Your task to perform on an android device: toggle notification dots Image 0: 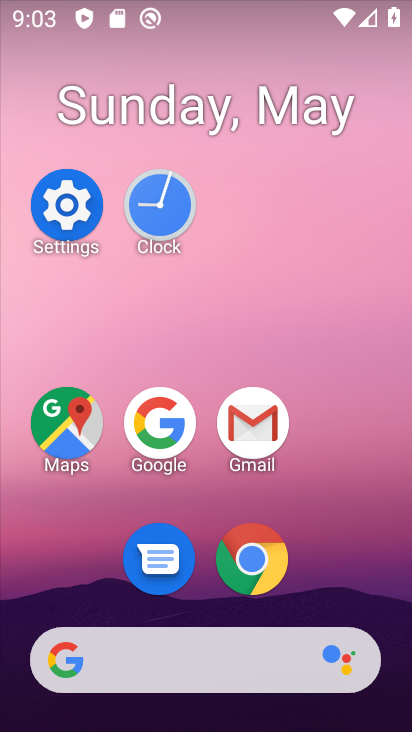
Step 0: click (67, 191)
Your task to perform on an android device: toggle notification dots Image 1: 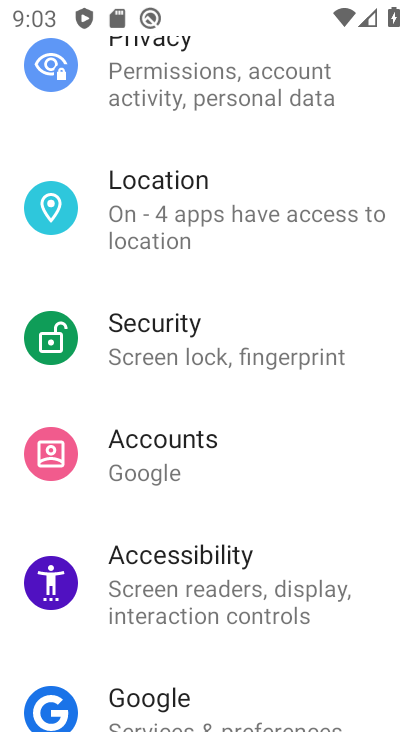
Step 1: drag from (113, 451) to (114, 731)
Your task to perform on an android device: toggle notification dots Image 2: 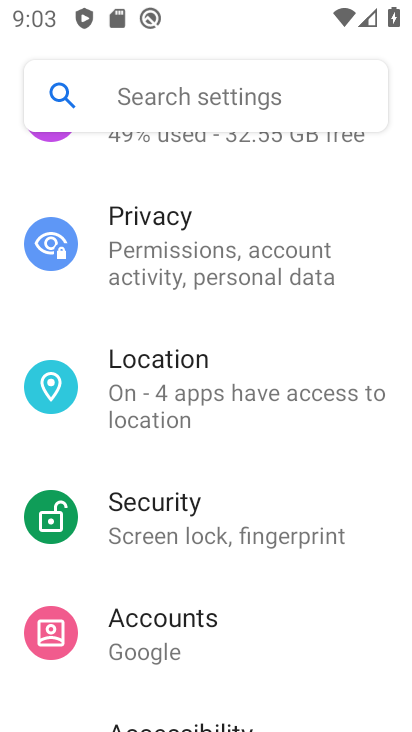
Step 2: drag from (294, 152) to (198, 649)
Your task to perform on an android device: toggle notification dots Image 3: 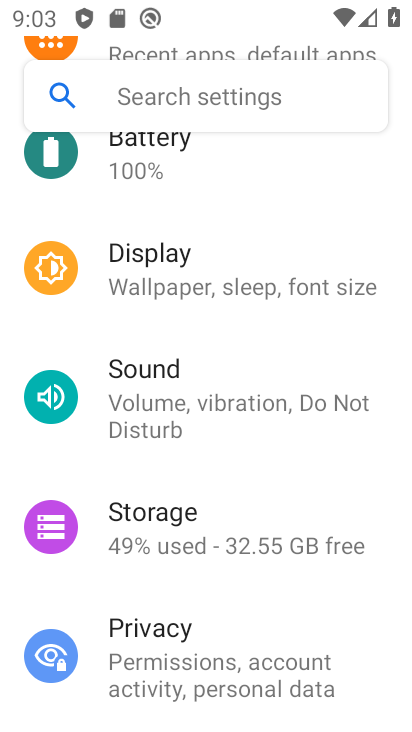
Step 3: drag from (269, 152) to (186, 730)
Your task to perform on an android device: toggle notification dots Image 4: 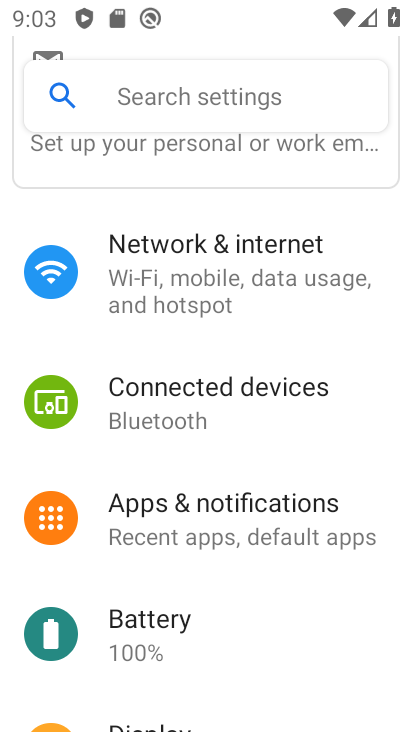
Step 4: drag from (243, 259) to (260, 624)
Your task to perform on an android device: toggle notification dots Image 5: 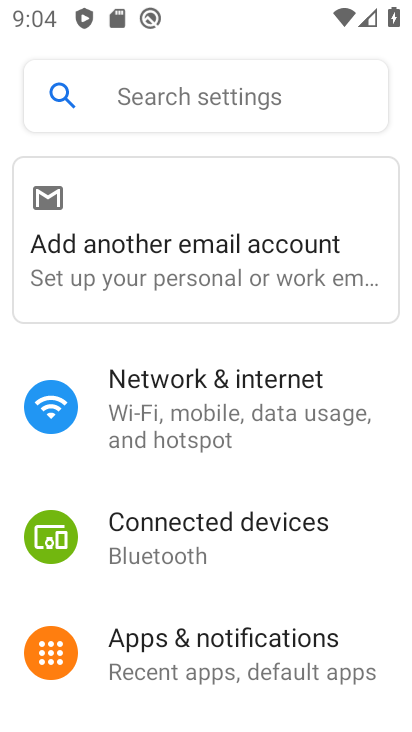
Step 5: click (217, 629)
Your task to perform on an android device: toggle notification dots Image 6: 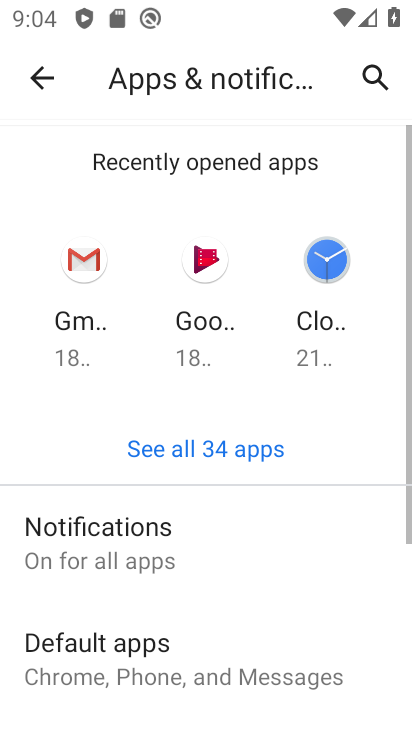
Step 6: drag from (217, 629) to (216, 284)
Your task to perform on an android device: toggle notification dots Image 7: 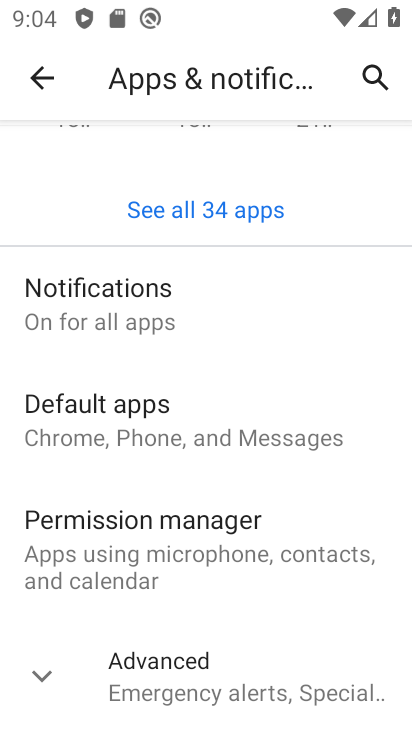
Step 7: click (205, 686)
Your task to perform on an android device: toggle notification dots Image 8: 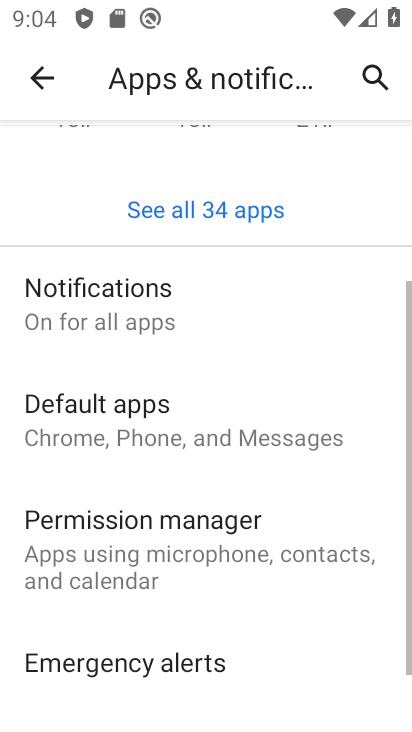
Step 8: drag from (174, 543) to (191, 279)
Your task to perform on an android device: toggle notification dots Image 9: 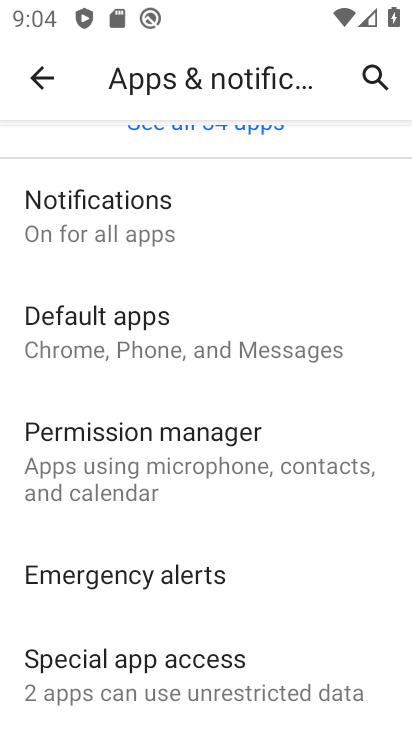
Step 9: drag from (174, 277) to (162, 698)
Your task to perform on an android device: toggle notification dots Image 10: 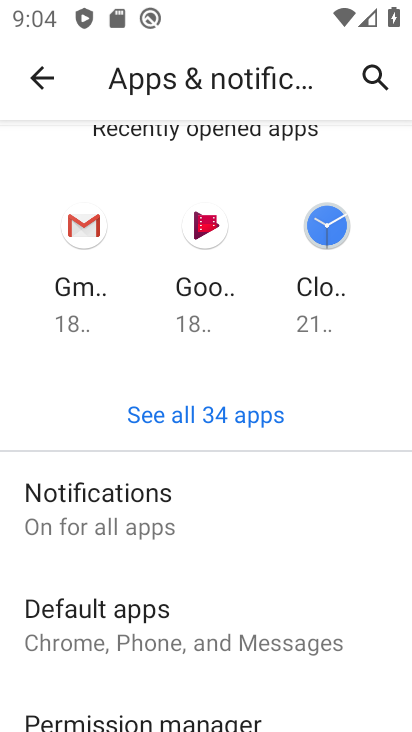
Step 10: click (80, 530)
Your task to perform on an android device: toggle notification dots Image 11: 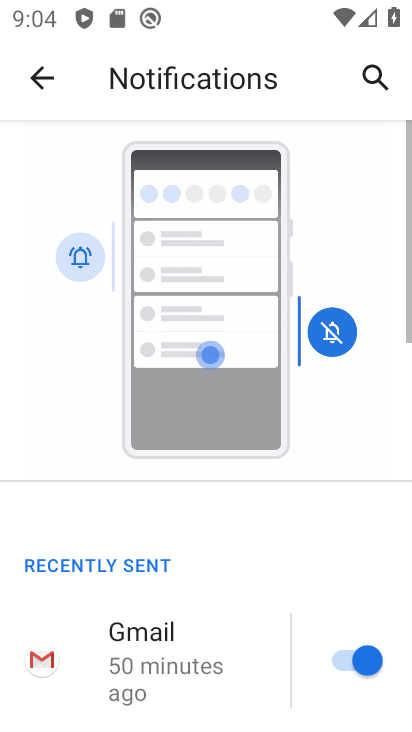
Step 11: drag from (216, 600) to (251, 321)
Your task to perform on an android device: toggle notification dots Image 12: 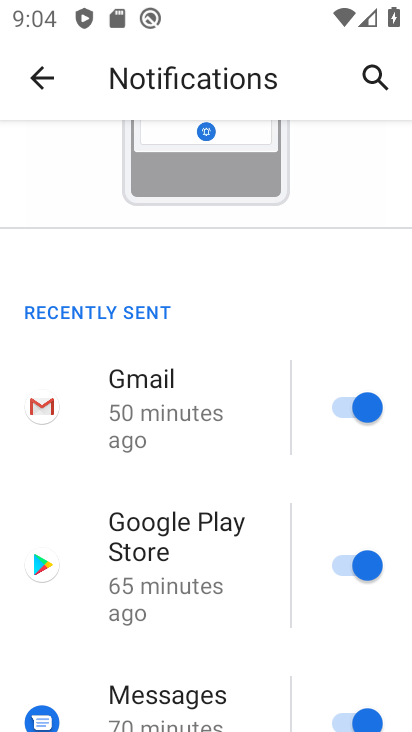
Step 12: drag from (220, 649) to (217, 365)
Your task to perform on an android device: toggle notification dots Image 13: 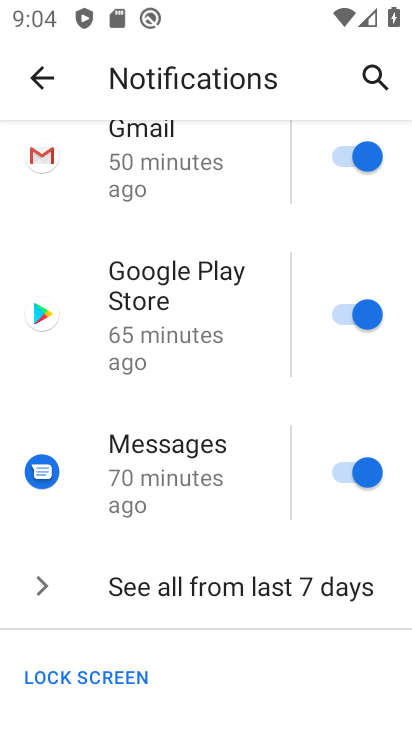
Step 13: click (158, 693)
Your task to perform on an android device: toggle notification dots Image 14: 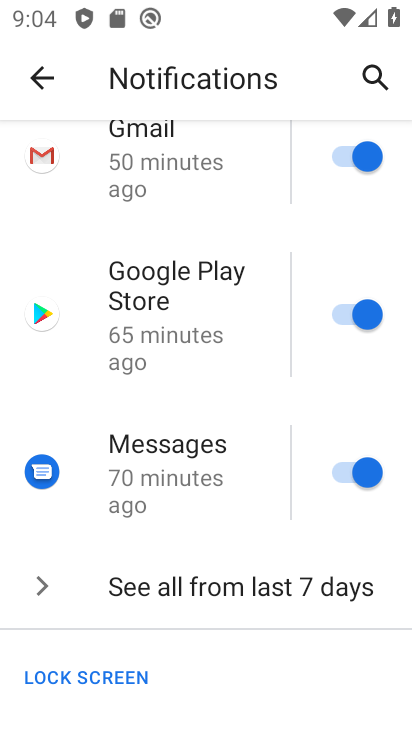
Step 14: drag from (179, 662) to (221, 368)
Your task to perform on an android device: toggle notification dots Image 15: 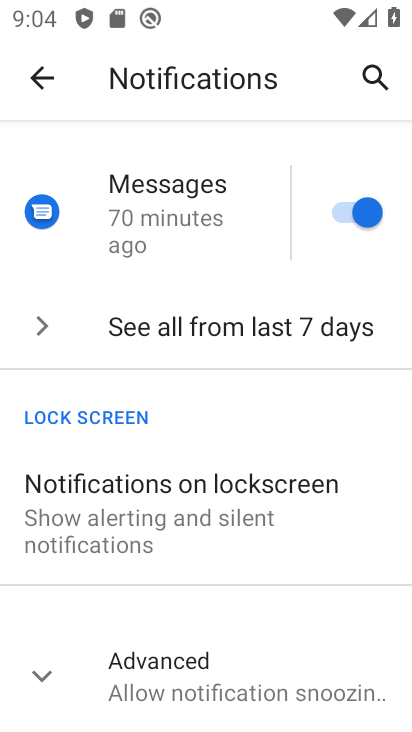
Step 15: click (186, 670)
Your task to perform on an android device: toggle notification dots Image 16: 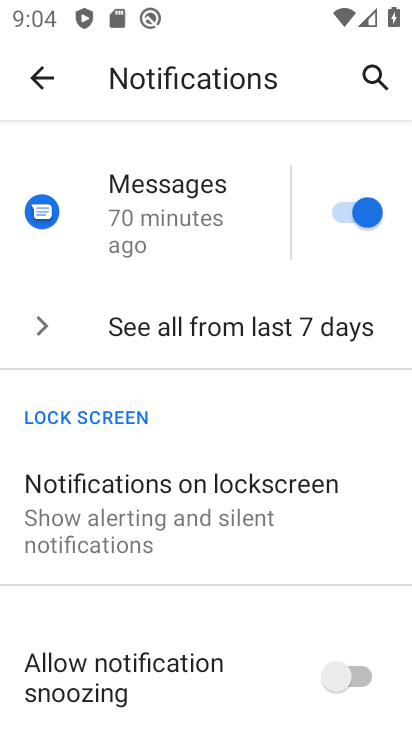
Step 16: drag from (186, 670) to (182, 353)
Your task to perform on an android device: toggle notification dots Image 17: 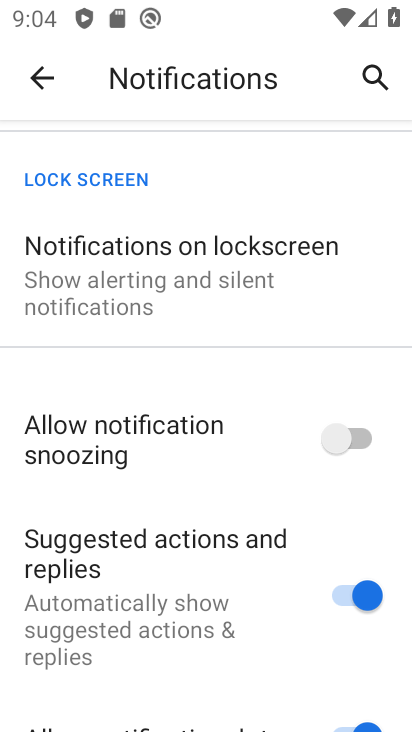
Step 17: drag from (285, 654) to (216, 358)
Your task to perform on an android device: toggle notification dots Image 18: 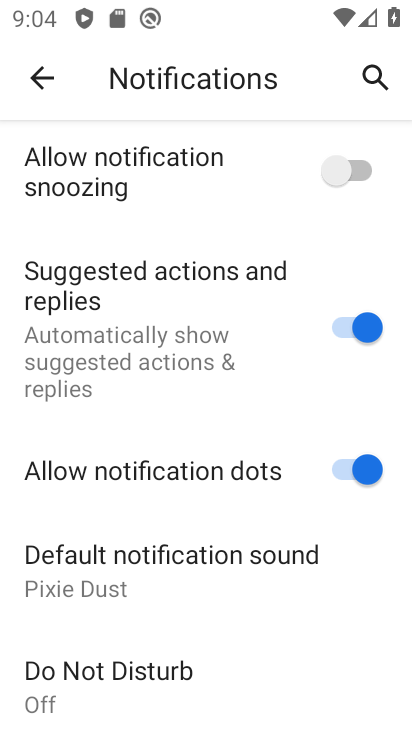
Step 18: click (356, 473)
Your task to perform on an android device: toggle notification dots Image 19: 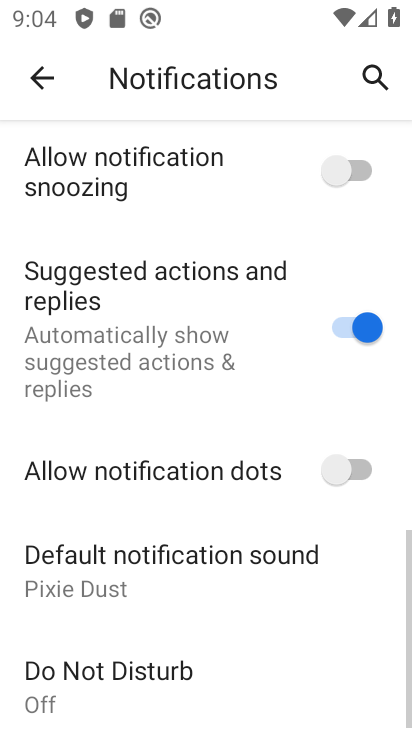
Step 19: task complete